Your task to perform on an android device: What is the news today? Image 0: 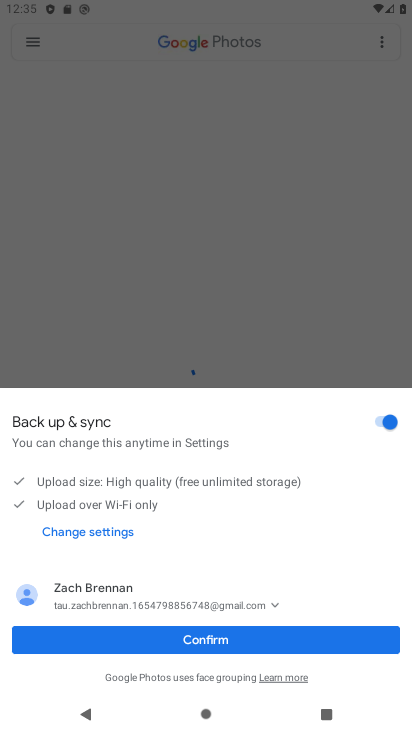
Step 0: press home button
Your task to perform on an android device: What is the news today? Image 1: 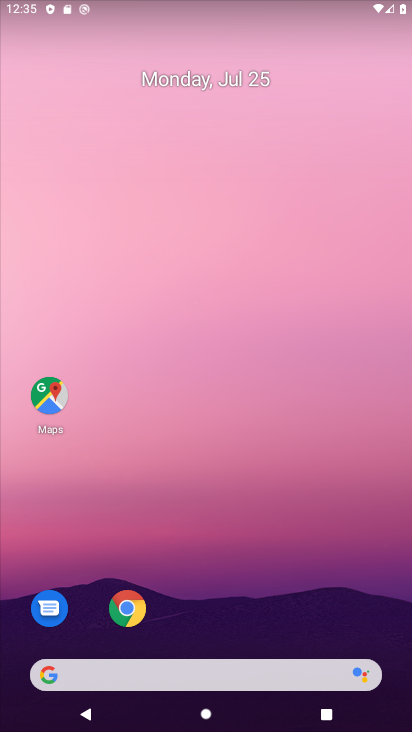
Step 1: drag from (195, 650) to (174, 1)
Your task to perform on an android device: What is the news today? Image 2: 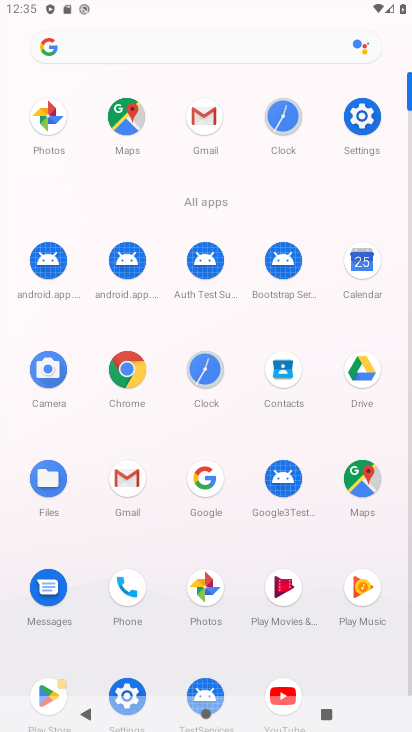
Step 2: click (210, 500)
Your task to perform on an android device: What is the news today? Image 3: 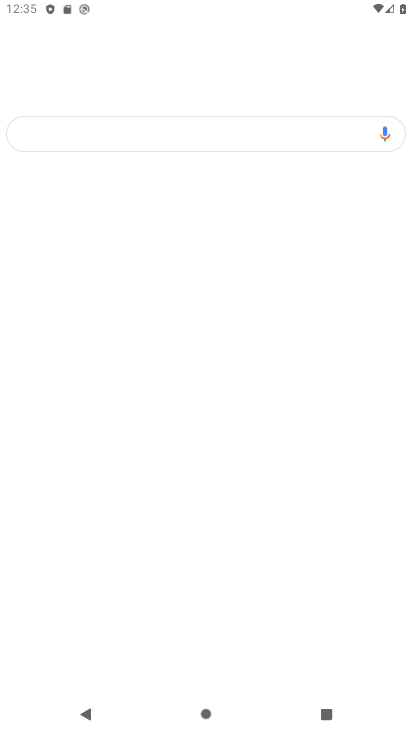
Step 3: click (210, 478)
Your task to perform on an android device: What is the news today? Image 4: 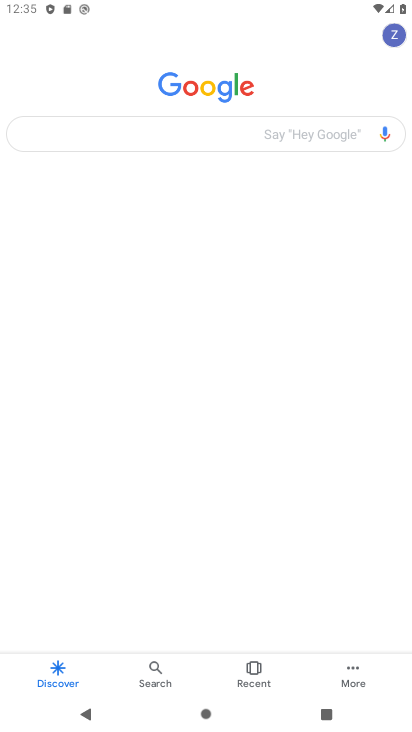
Step 4: click (149, 140)
Your task to perform on an android device: What is the news today? Image 5: 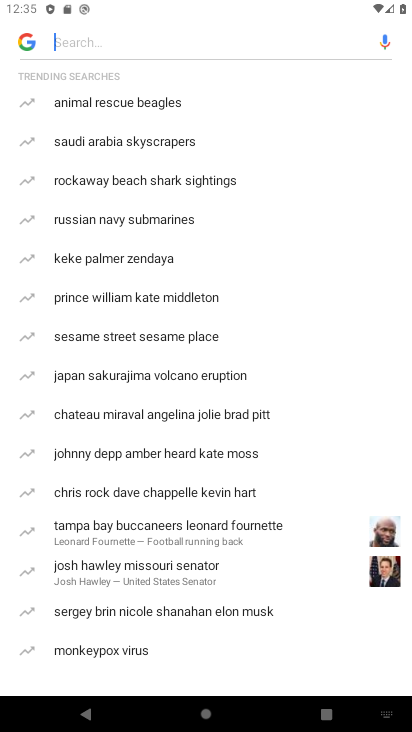
Step 5: task complete